Your task to perform on an android device: turn off data saver in the chrome app Image 0: 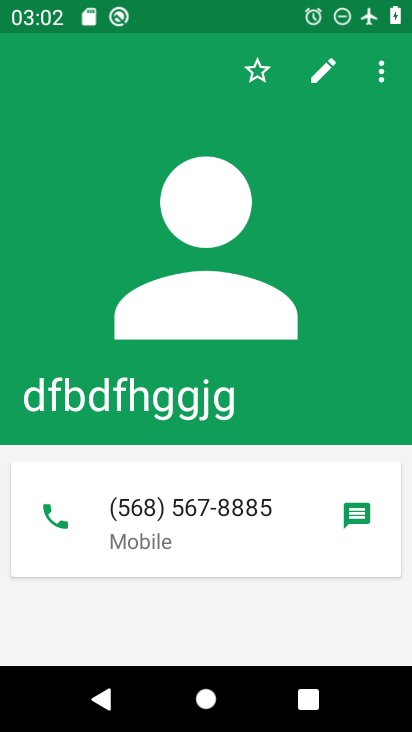
Step 0: press home button
Your task to perform on an android device: turn off data saver in the chrome app Image 1: 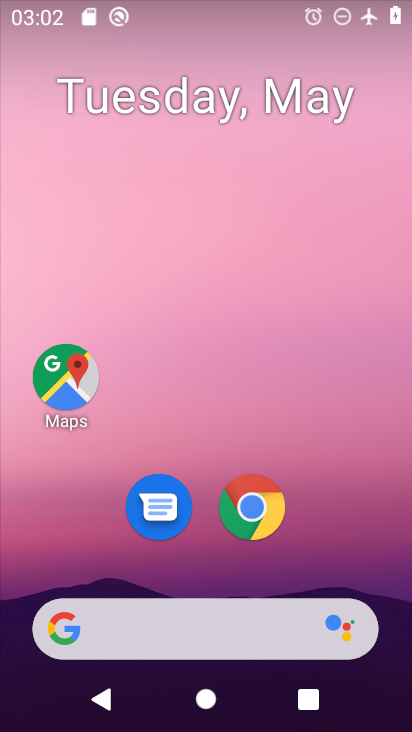
Step 1: click (247, 488)
Your task to perform on an android device: turn off data saver in the chrome app Image 2: 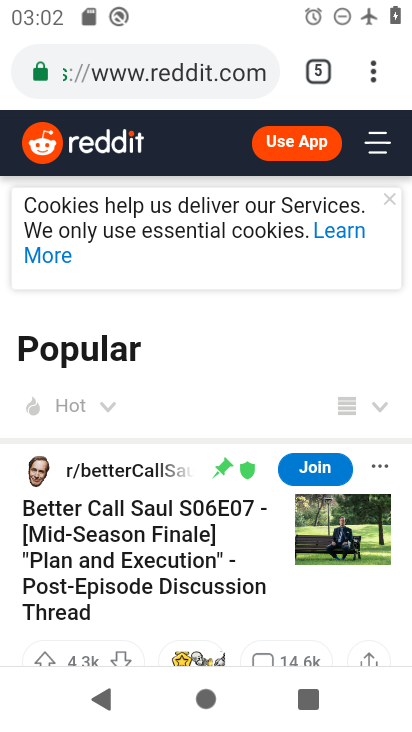
Step 2: click (376, 70)
Your task to perform on an android device: turn off data saver in the chrome app Image 3: 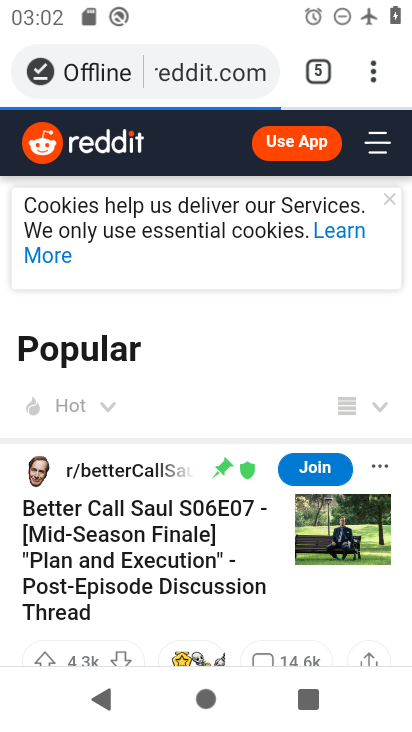
Step 3: drag from (373, 72) to (176, 490)
Your task to perform on an android device: turn off data saver in the chrome app Image 4: 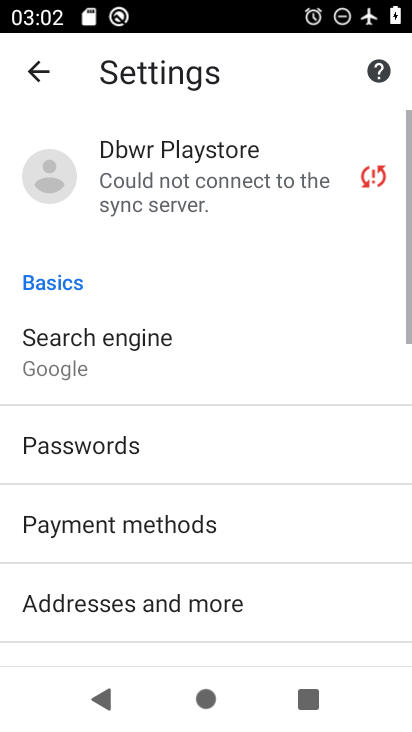
Step 4: drag from (226, 575) to (239, 317)
Your task to perform on an android device: turn off data saver in the chrome app Image 5: 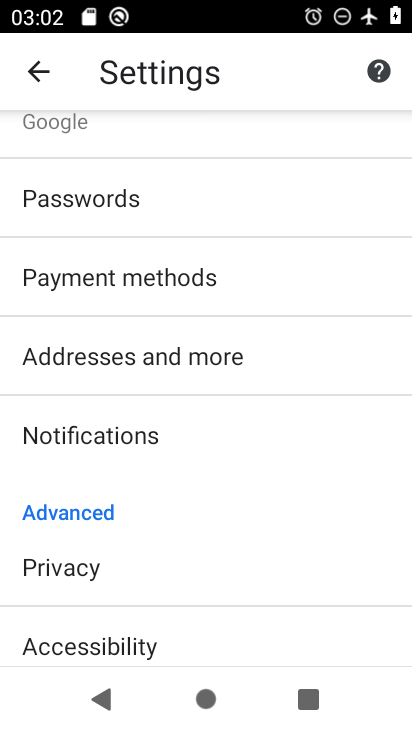
Step 5: drag from (197, 593) to (204, 353)
Your task to perform on an android device: turn off data saver in the chrome app Image 6: 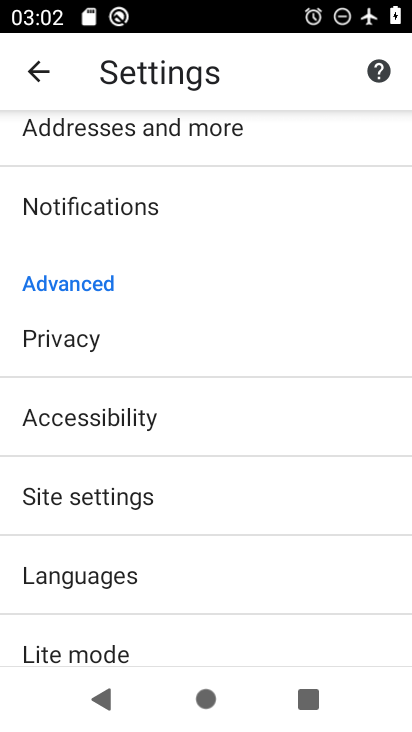
Step 6: drag from (143, 631) to (170, 440)
Your task to perform on an android device: turn off data saver in the chrome app Image 7: 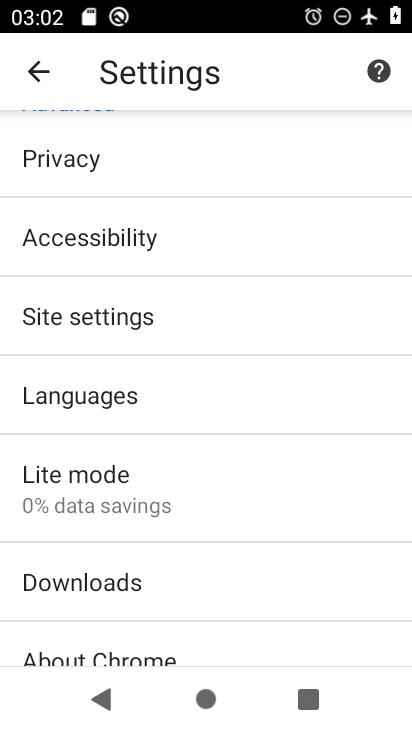
Step 7: click (151, 461)
Your task to perform on an android device: turn off data saver in the chrome app Image 8: 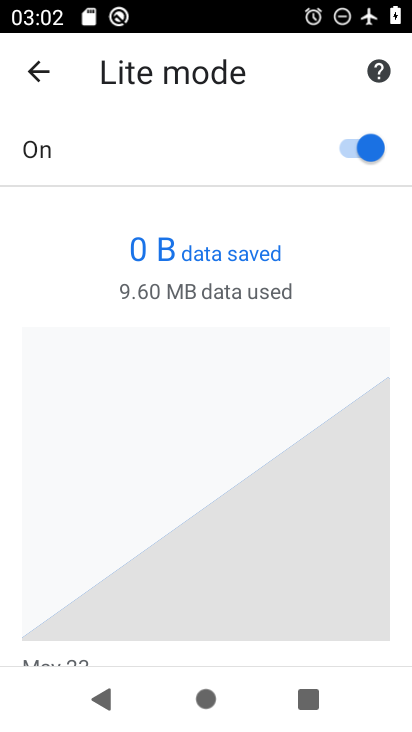
Step 8: click (358, 151)
Your task to perform on an android device: turn off data saver in the chrome app Image 9: 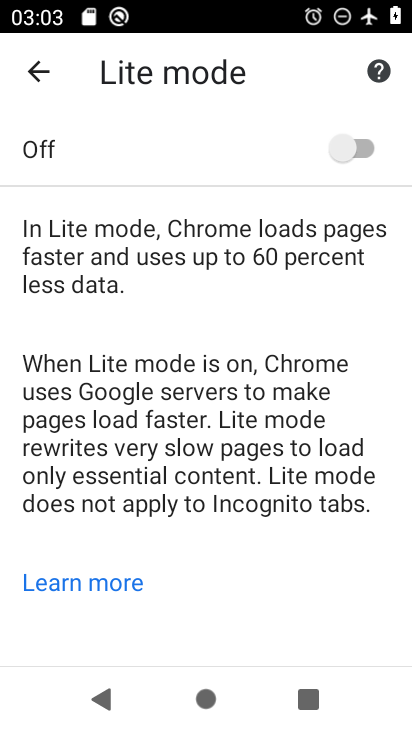
Step 9: task complete